Your task to perform on an android device: open sync settings in chrome Image 0: 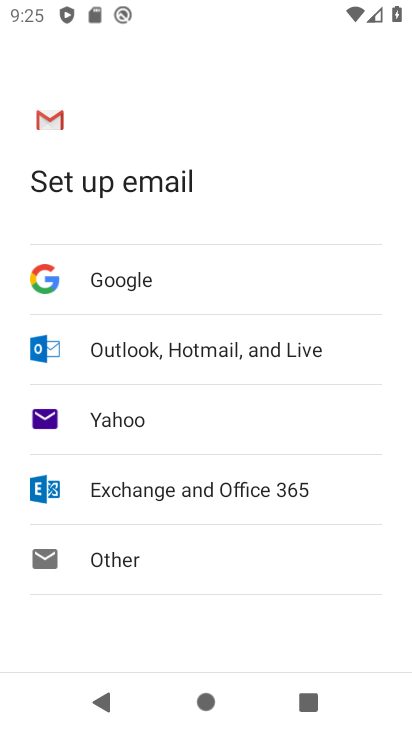
Step 0: press home button
Your task to perform on an android device: open sync settings in chrome Image 1: 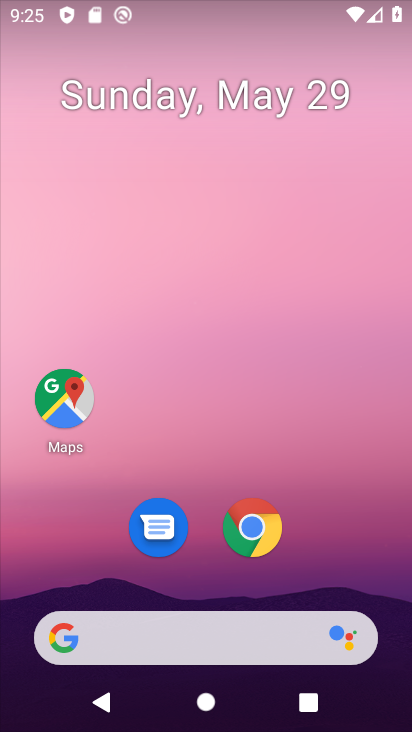
Step 1: click (256, 524)
Your task to perform on an android device: open sync settings in chrome Image 2: 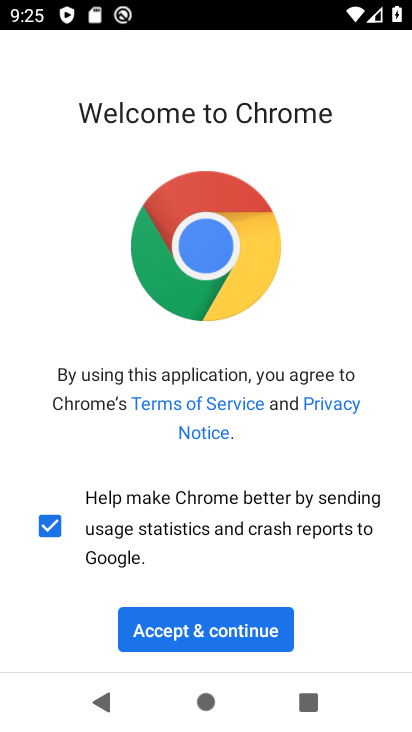
Step 2: click (178, 630)
Your task to perform on an android device: open sync settings in chrome Image 3: 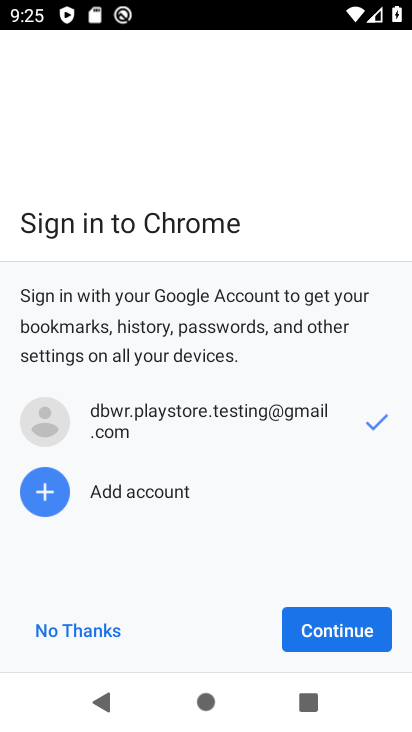
Step 3: click (309, 625)
Your task to perform on an android device: open sync settings in chrome Image 4: 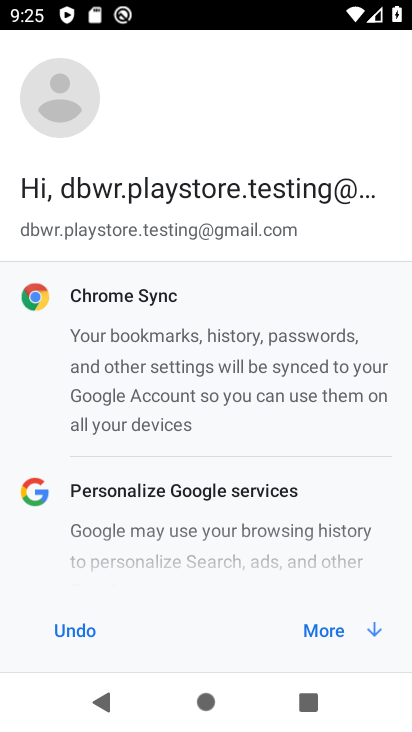
Step 4: click (341, 628)
Your task to perform on an android device: open sync settings in chrome Image 5: 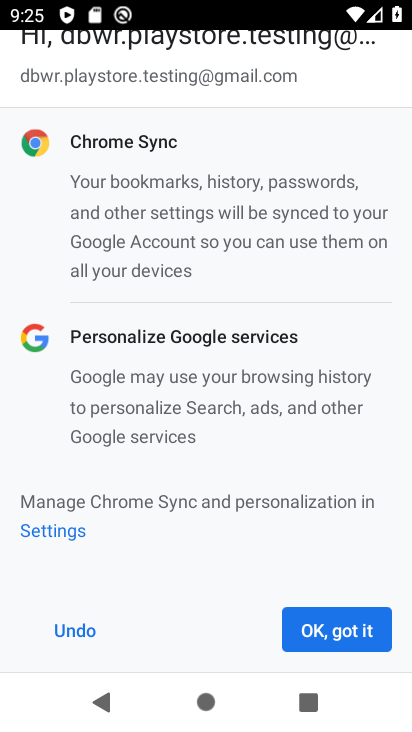
Step 5: click (341, 623)
Your task to perform on an android device: open sync settings in chrome Image 6: 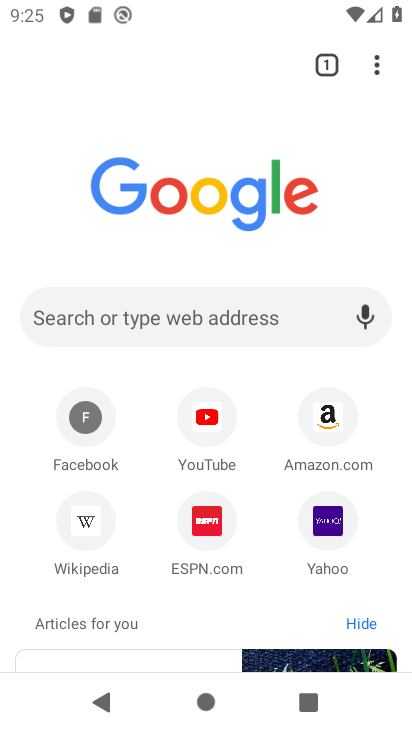
Step 6: click (373, 60)
Your task to perform on an android device: open sync settings in chrome Image 7: 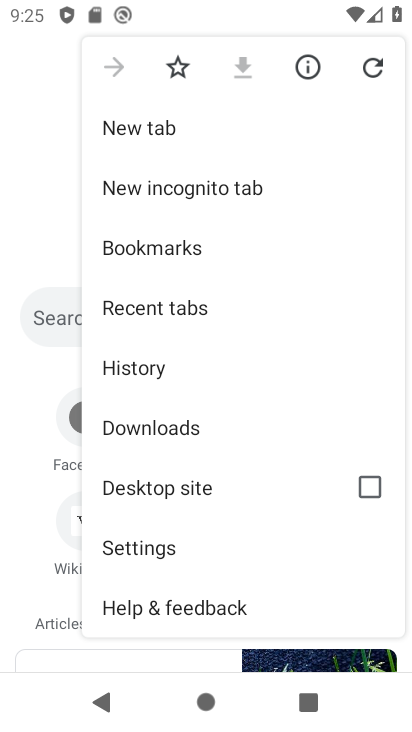
Step 7: click (185, 549)
Your task to perform on an android device: open sync settings in chrome Image 8: 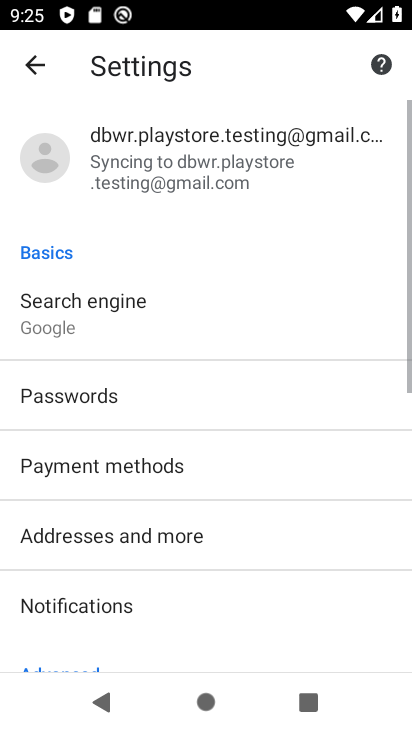
Step 8: drag from (197, 568) to (206, 267)
Your task to perform on an android device: open sync settings in chrome Image 9: 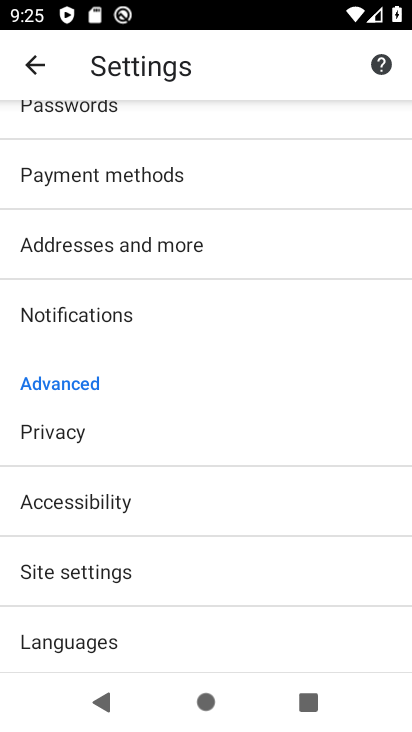
Step 9: drag from (100, 602) to (148, 222)
Your task to perform on an android device: open sync settings in chrome Image 10: 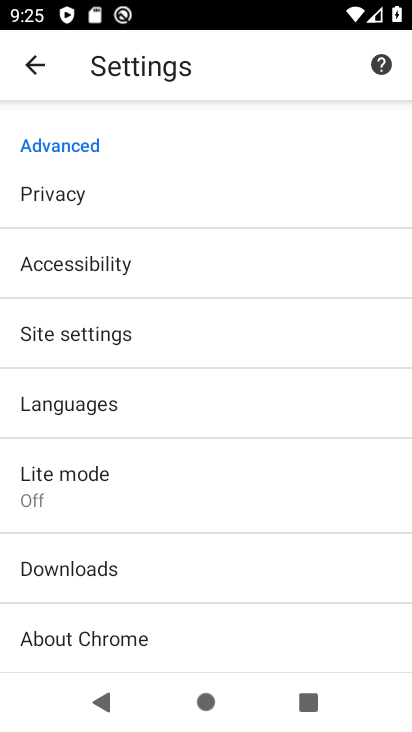
Step 10: drag from (166, 291) to (177, 722)
Your task to perform on an android device: open sync settings in chrome Image 11: 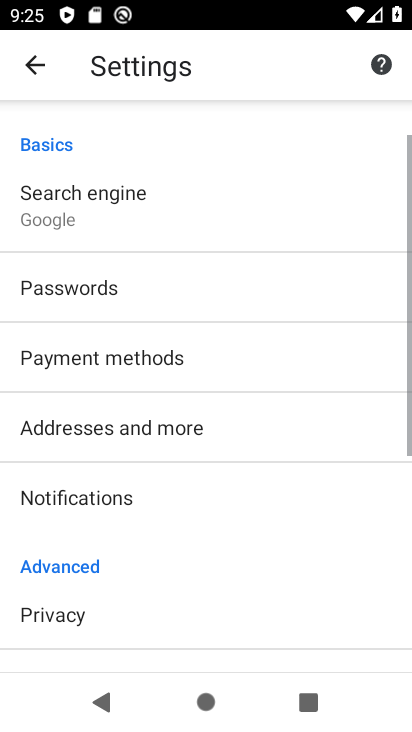
Step 11: drag from (156, 286) to (188, 729)
Your task to perform on an android device: open sync settings in chrome Image 12: 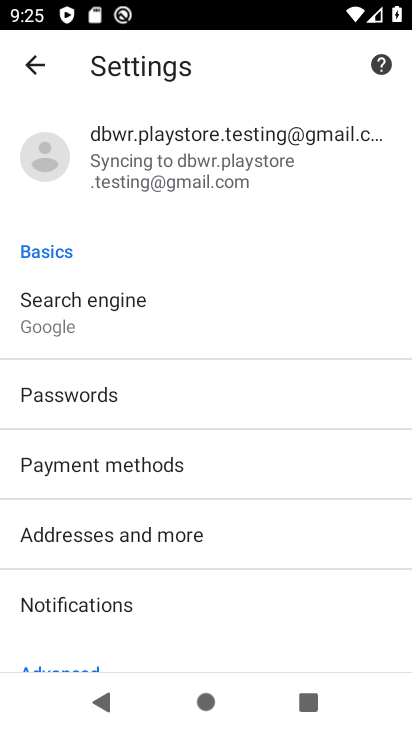
Step 12: click (175, 193)
Your task to perform on an android device: open sync settings in chrome Image 13: 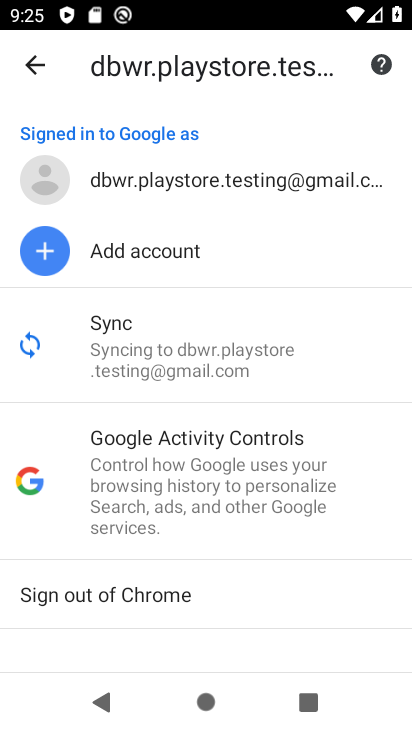
Step 13: click (150, 337)
Your task to perform on an android device: open sync settings in chrome Image 14: 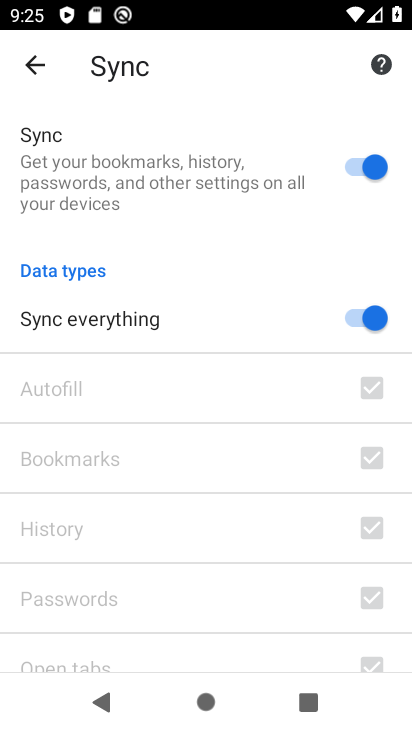
Step 14: task complete